Your task to perform on an android device: turn off airplane mode Image 0: 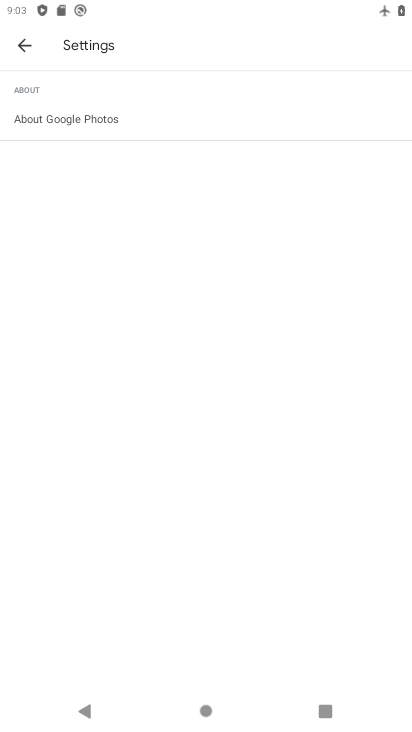
Step 0: press back button
Your task to perform on an android device: turn off airplane mode Image 1: 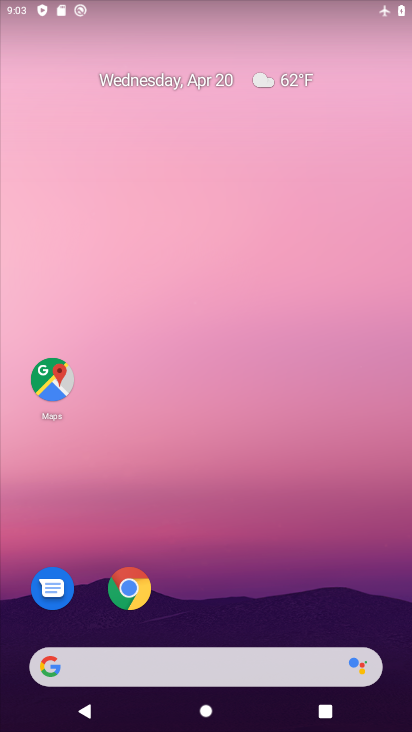
Step 1: drag from (305, 560) to (200, 42)
Your task to perform on an android device: turn off airplane mode Image 2: 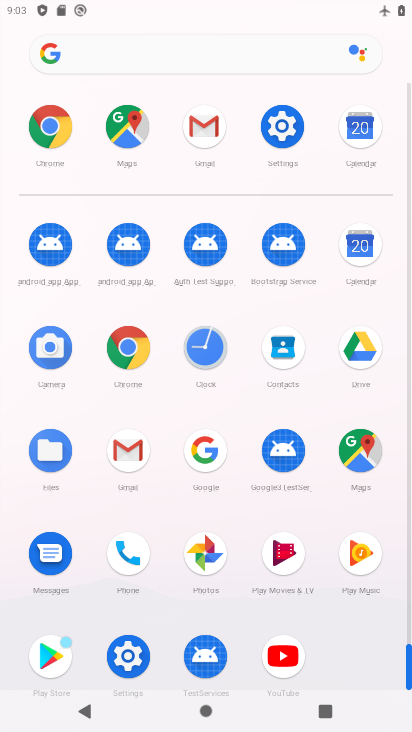
Step 2: click (284, 126)
Your task to perform on an android device: turn off airplane mode Image 3: 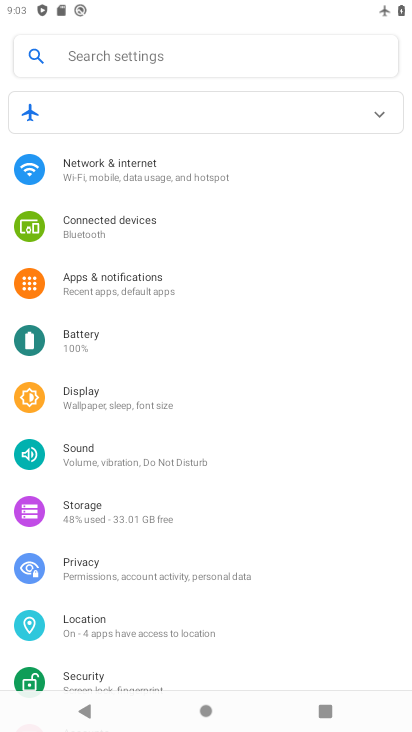
Step 3: click (222, 161)
Your task to perform on an android device: turn off airplane mode Image 4: 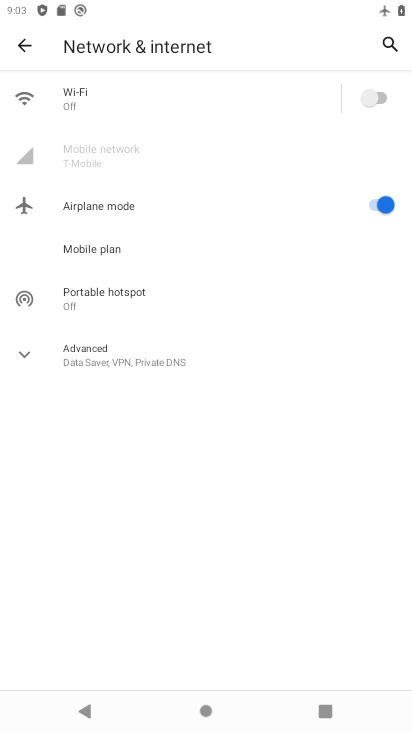
Step 4: click (369, 204)
Your task to perform on an android device: turn off airplane mode Image 5: 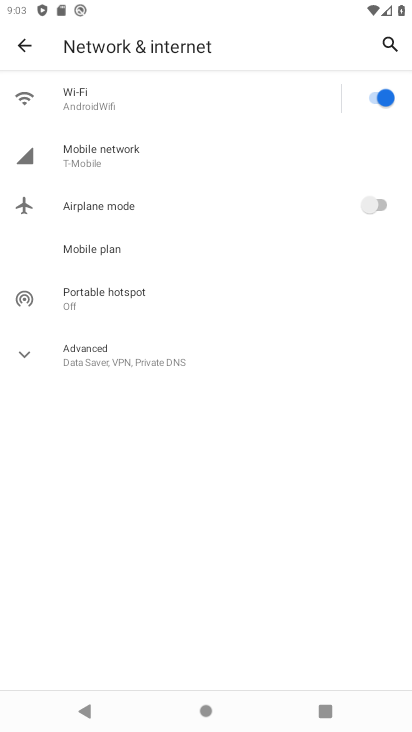
Step 5: click (26, 348)
Your task to perform on an android device: turn off airplane mode Image 6: 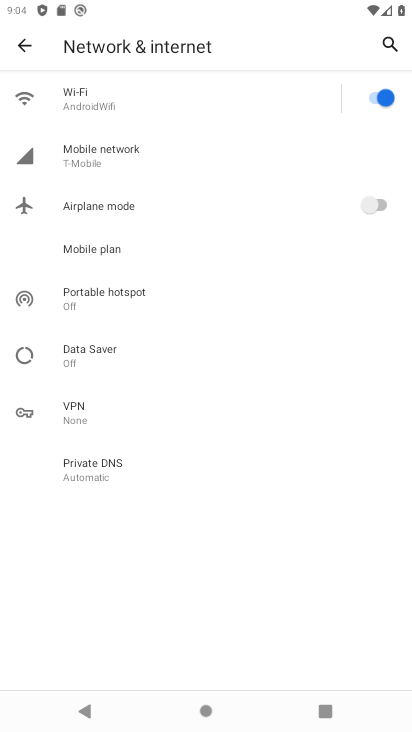
Step 6: task complete